Your task to perform on an android device: turn vacation reply on in the gmail app Image 0: 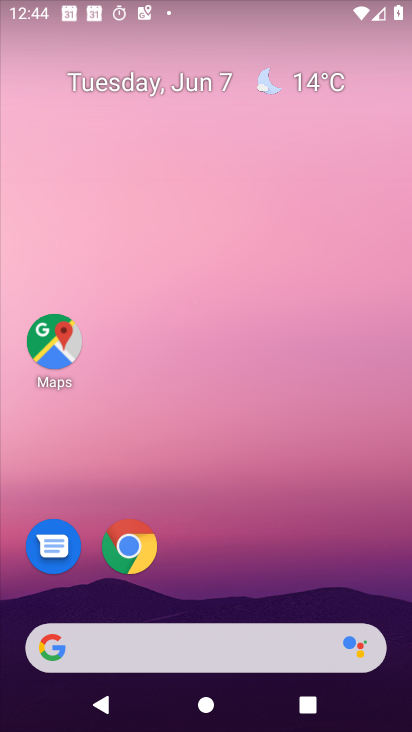
Step 0: drag from (259, 615) to (359, 174)
Your task to perform on an android device: turn vacation reply on in the gmail app Image 1: 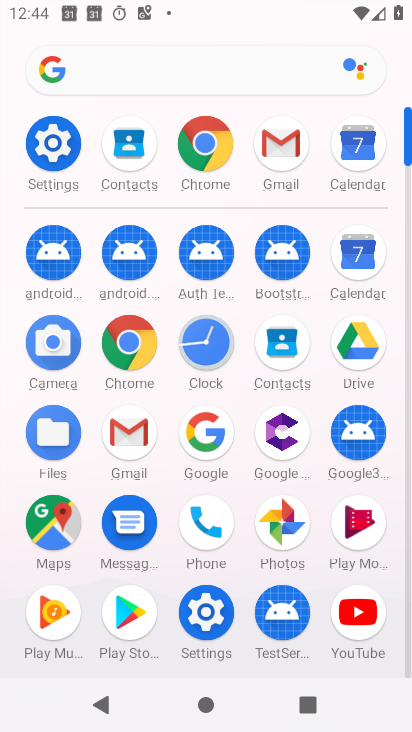
Step 1: click (140, 444)
Your task to perform on an android device: turn vacation reply on in the gmail app Image 2: 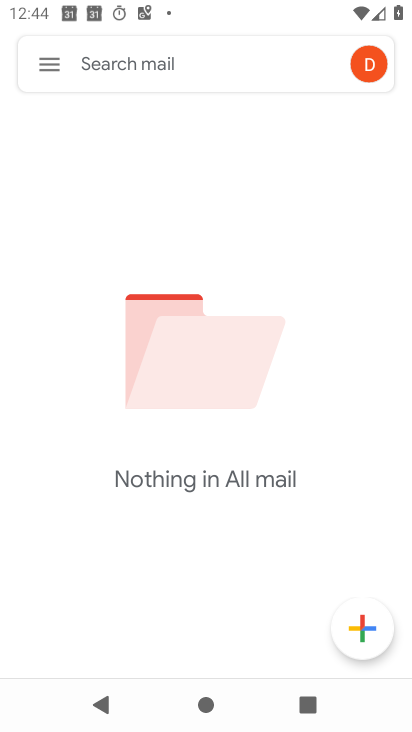
Step 2: click (53, 61)
Your task to perform on an android device: turn vacation reply on in the gmail app Image 3: 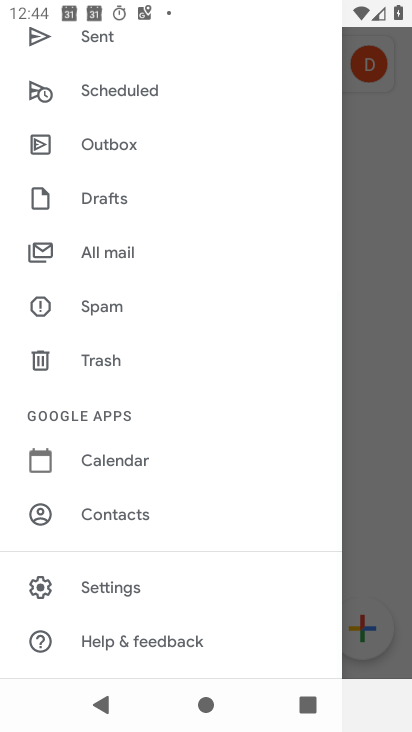
Step 3: click (130, 587)
Your task to perform on an android device: turn vacation reply on in the gmail app Image 4: 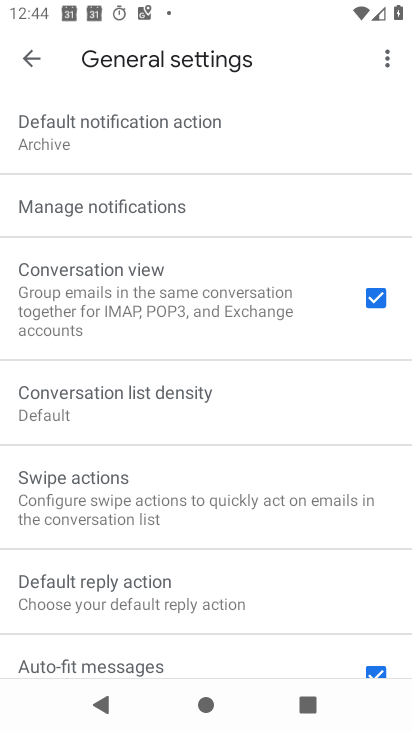
Step 4: click (30, 60)
Your task to perform on an android device: turn vacation reply on in the gmail app Image 5: 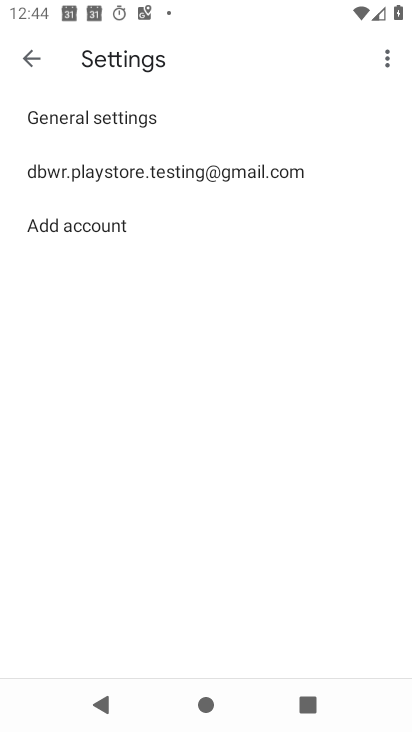
Step 5: click (197, 173)
Your task to perform on an android device: turn vacation reply on in the gmail app Image 6: 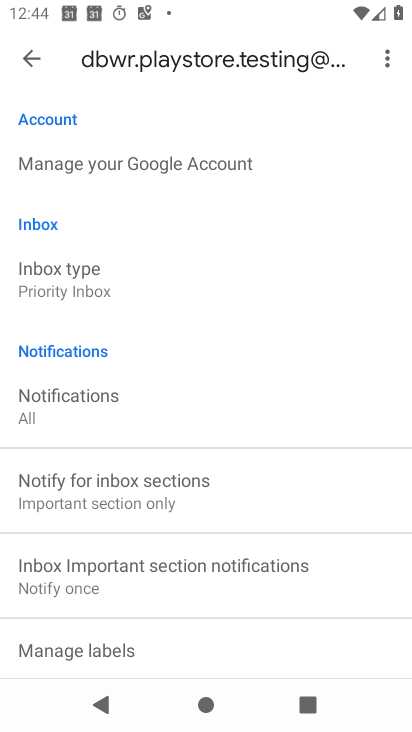
Step 6: drag from (169, 509) to (269, 166)
Your task to perform on an android device: turn vacation reply on in the gmail app Image 7: 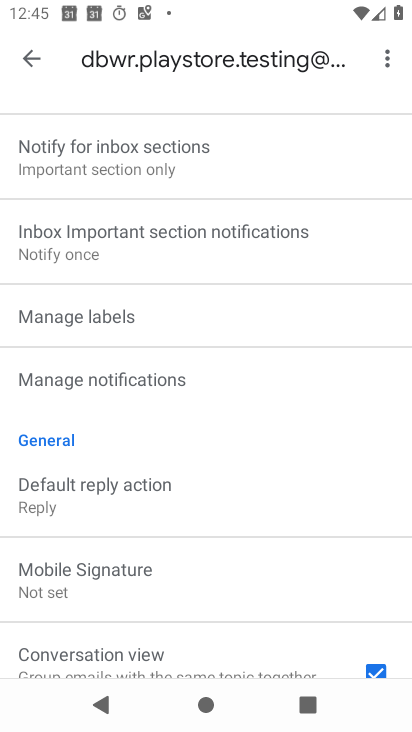
Step 7: drag from (185, 486) to (252, 255)
Your task to perform on an android device: turn vacation reply on in the gmail app Image 8: 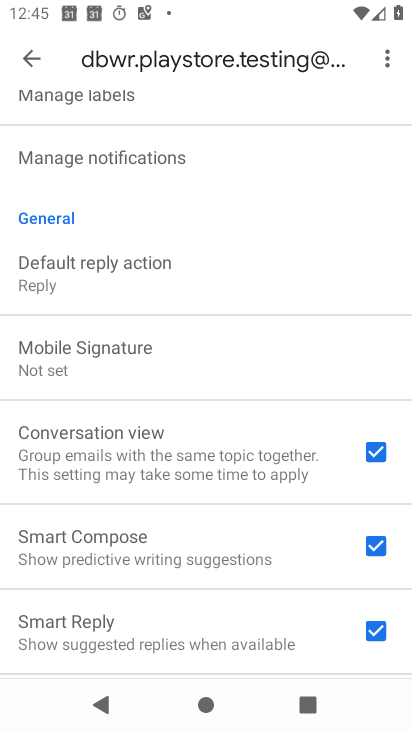
Step 8: drag from (172, 573) to (229, 366)
Your task to perform on an android device: turn vacation reply on in the gmail app Image 9: 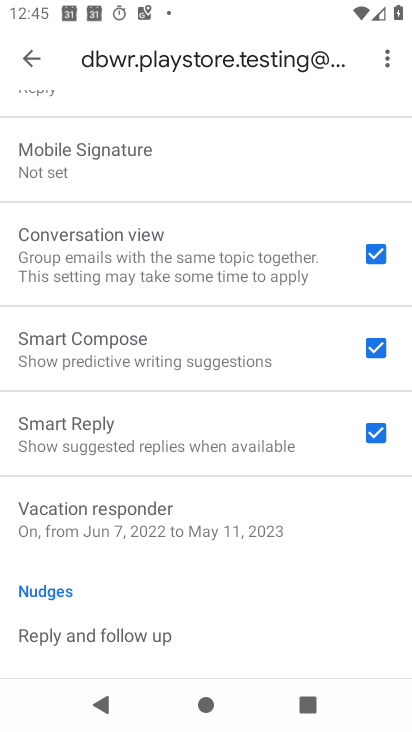
Step 9: click (163, 515)
Your task to perform on an android device: turn vacation reply on in the gmail app Image 10: 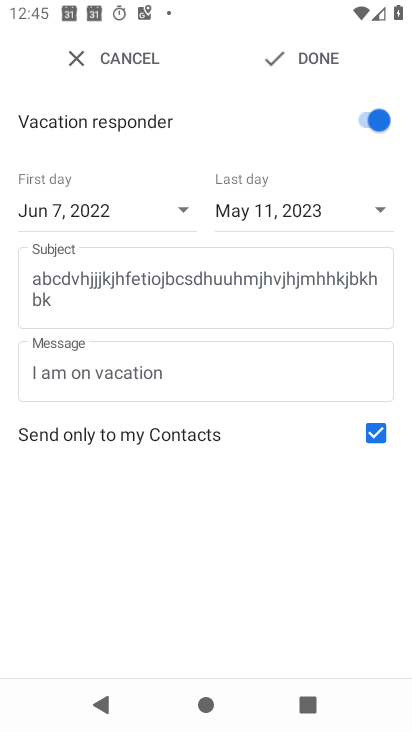
Step 10: task complete